Your task to perform on an android device: toggle airplane mode Image 0: 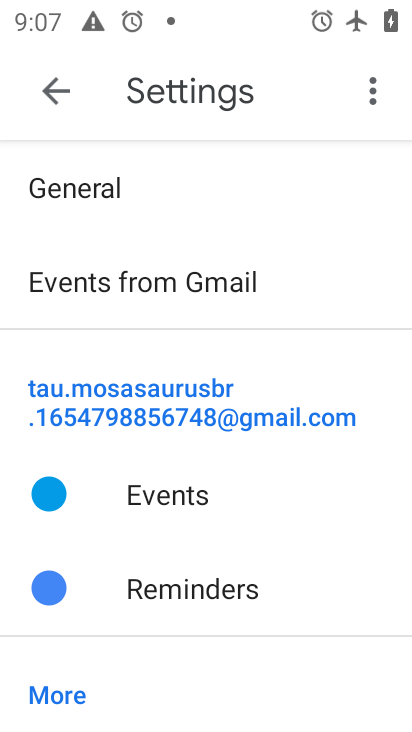
Step 0: press home button
Your task to perform on an android device: toggle airplane mode Image 1: 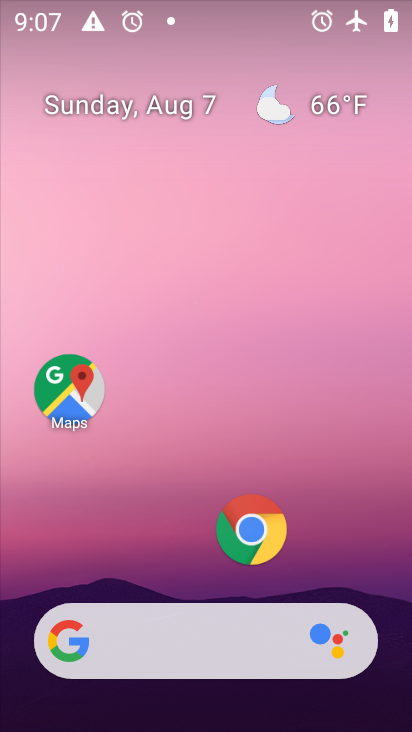
Step 1: drag from (169, 507) to (201, 101)
Your task to perform on an android device: toggle airplane mode Image 2: 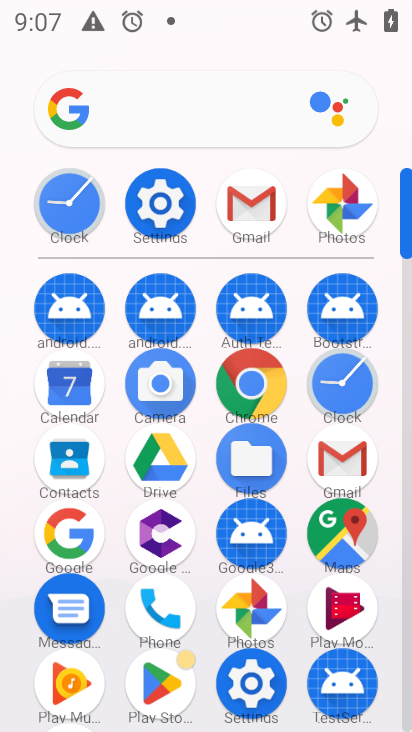
Step 2: click (240, 689)
Your task to perform on an android device: toggle airplane mode Image 3: 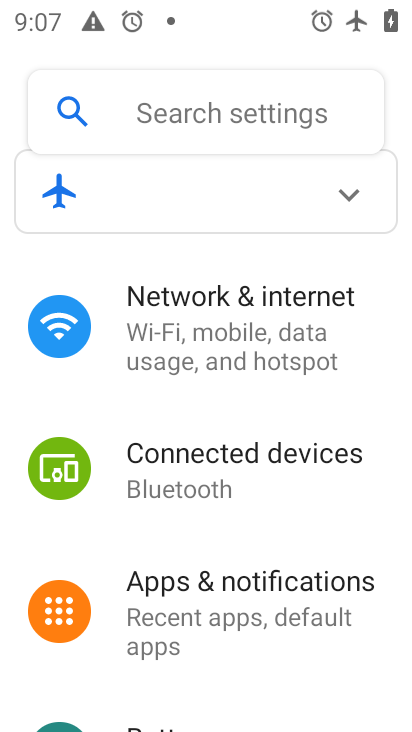
Step 3: click (190, 334)
Your task to perform on an android device: toggle airplane mode Image 4: 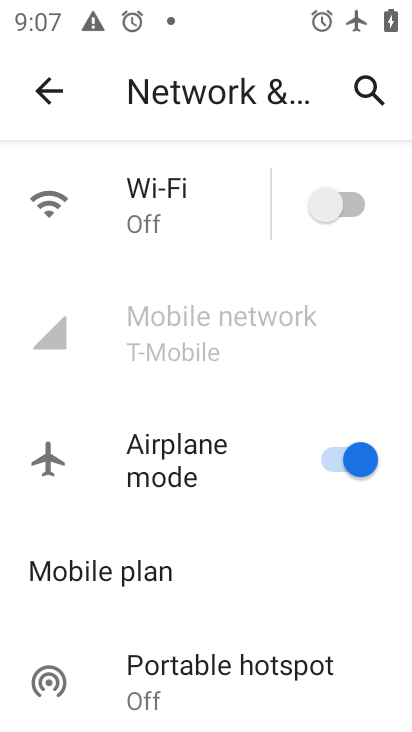
Step 4: click (305, 468)
Your task to perform on an android device: toggle airplane mode Image 5: 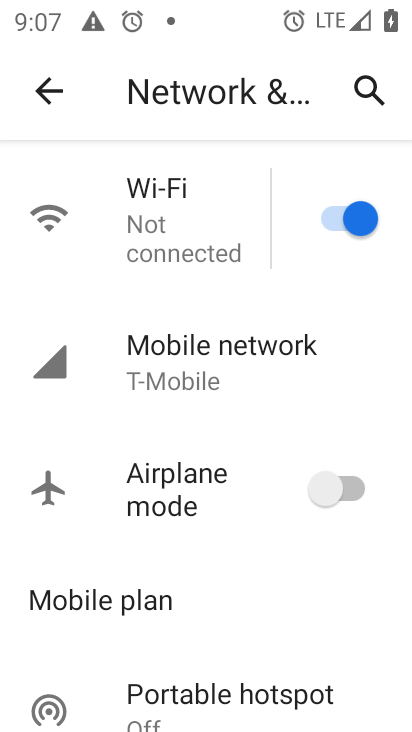
Step 5: task complete